Your task to perform on an android device: Open Google Maps and go to "Timeline" Image 0: 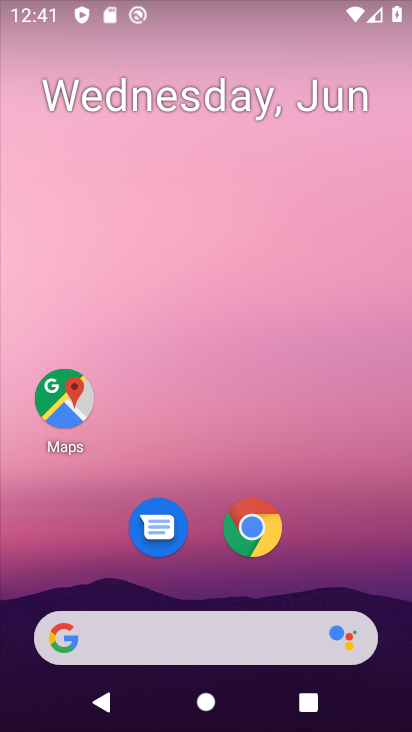
Step 0: drag from (241, 625) to (290, 68)
Your task to perform on an android device: Open Google Maps and go to "Timeline" Image 1: 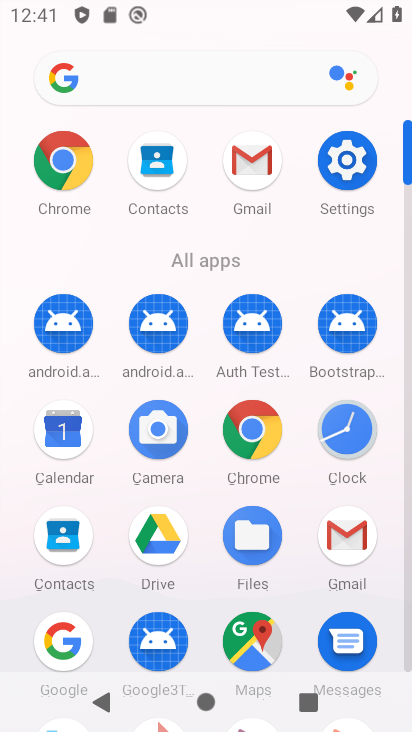
Step 1: click (236, 628)
Your task to perform on an android device: Open Google Maps and go to "Timeline" Image 2: 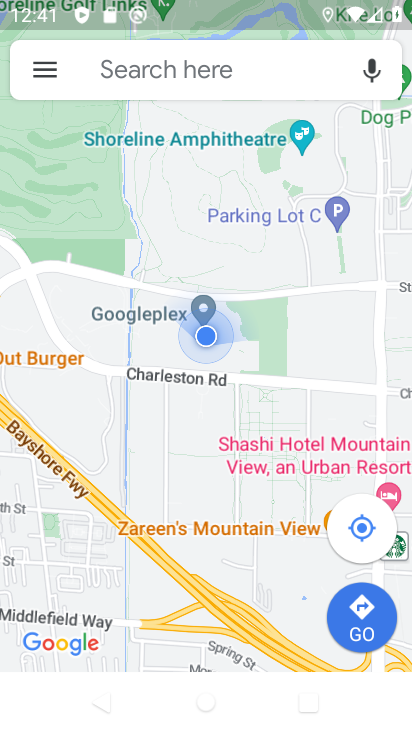
Step 2: click (37, 76)
Your task to perform on an android device: Open Google Maps and go to "Timeline" Image 3: 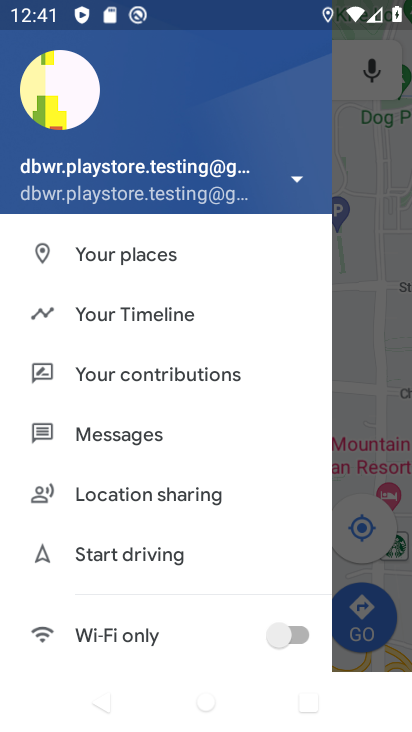
Step 3: click (126, 308)
Your task to perform on an android device: Open Google Maps and go to "Timeline" Image 4: 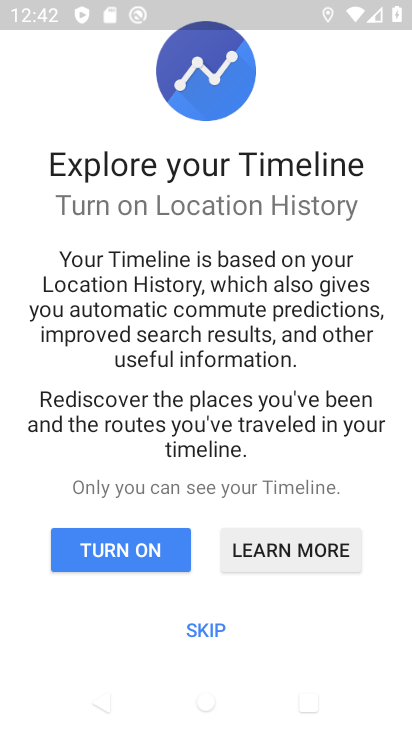
Step 4: click (120, 555)
Your task to perform on an android device: Open Google Maps and go to "Timeline" Image 5: 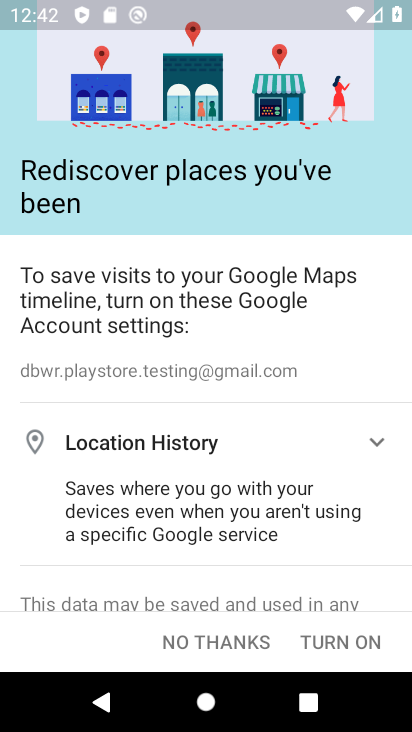
Step 5: click (332, 635)
Your task to perform on an android device: Open Google Maps and go to "Timeline" Image 6: 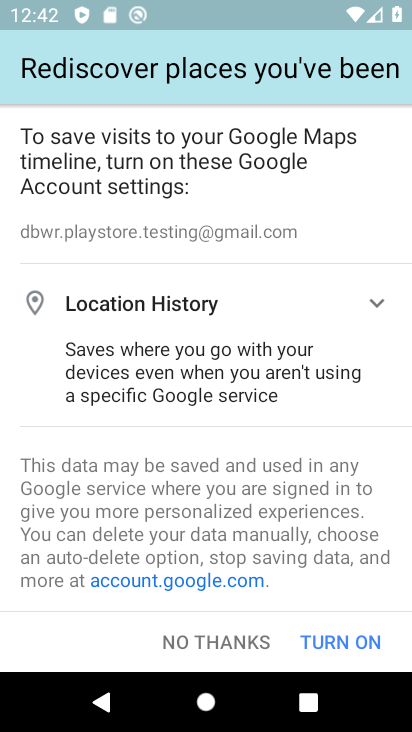
Step 6: click (337, 630)
Your task to perform on an android device: Open Google Maps and go to "Timeline" Image 7: 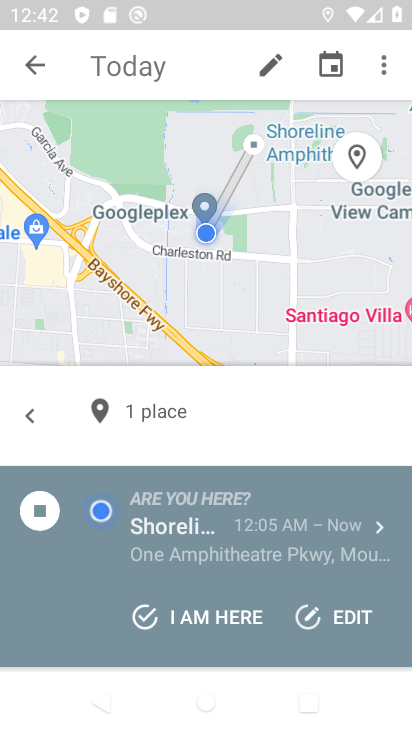
Step 7: task complete